Your task to perform on an android device: What's the weather? Image 0: 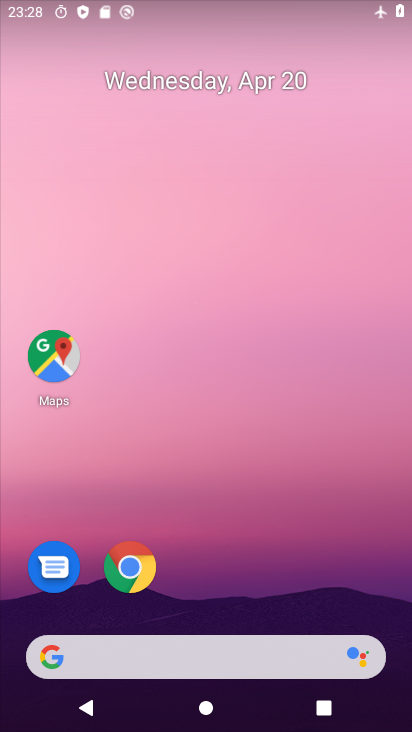
Step 0: drag from (270, 426) to (292, 275)
Your task to perform on an android device: What's the weather? Image 1: 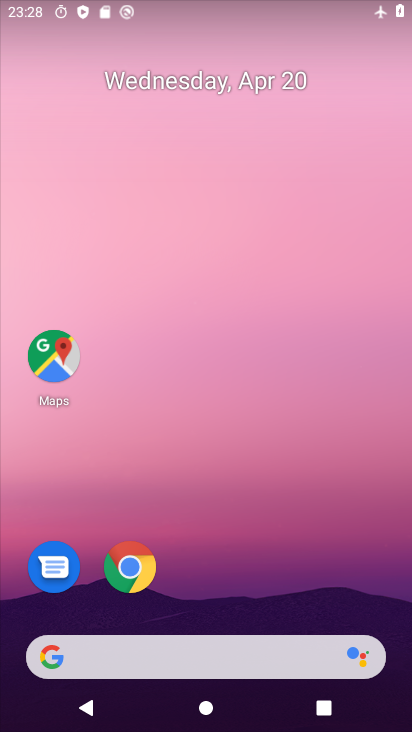
Step 1: click (300, 246)
Your task to perform on an android device: What's the weather? Image 2: 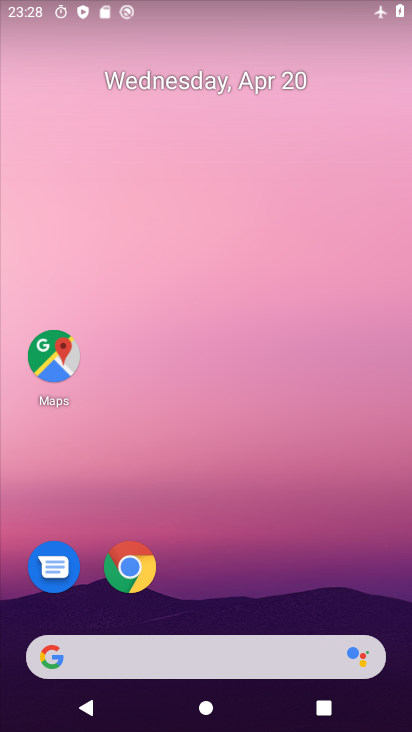
Step 2: click (253, 311)
Your task to perform on an android device: What's the weather? Image 3: 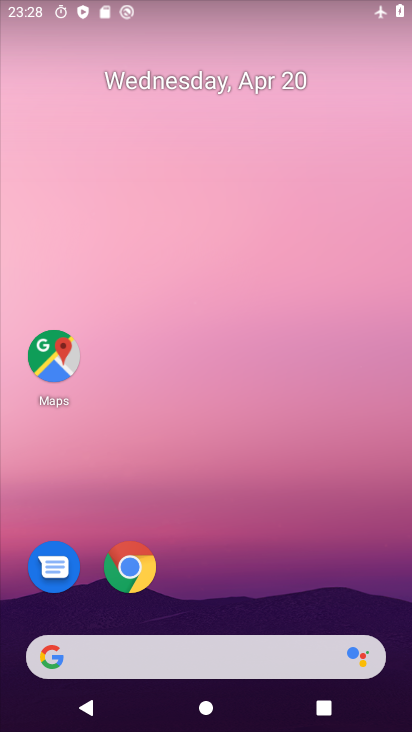
Step 3: click (275, 297)
Your task to perform on an android device: What's the weather? Image 4: 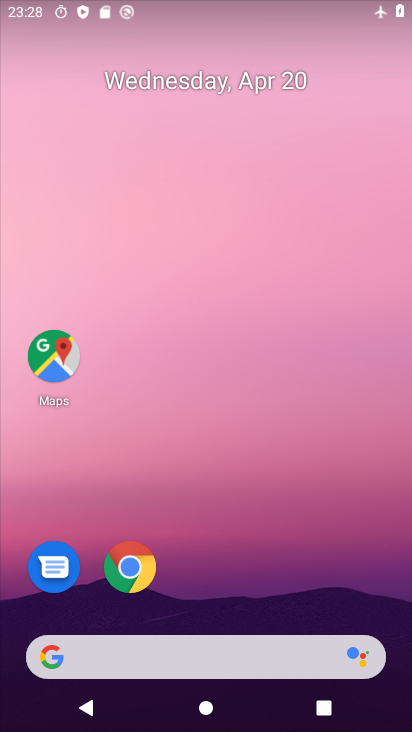
Step 4: click (272, 347)
Your task to perform on an android device: What's the weather? Image 5: 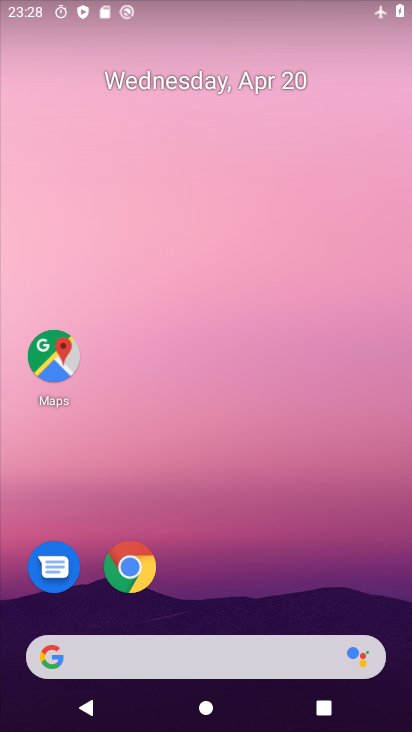
Step 5: click (255, 151)
Your task to perform on an android device: What's the weather? Image 6: 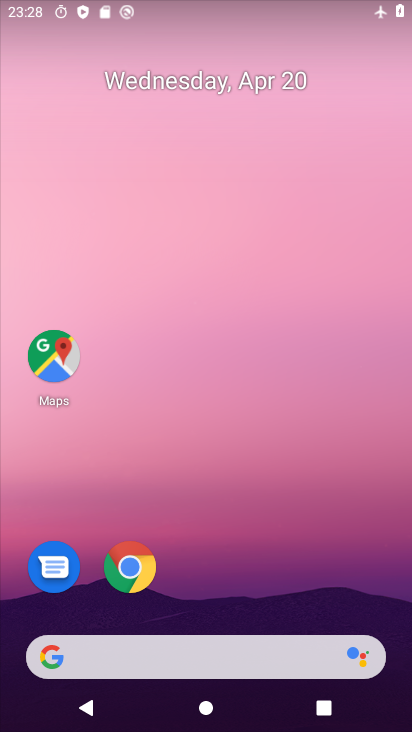
Step 6: drag from (294, 127) to (264, 286)
Your task to perform on an android device: What's the weather? Image 7: 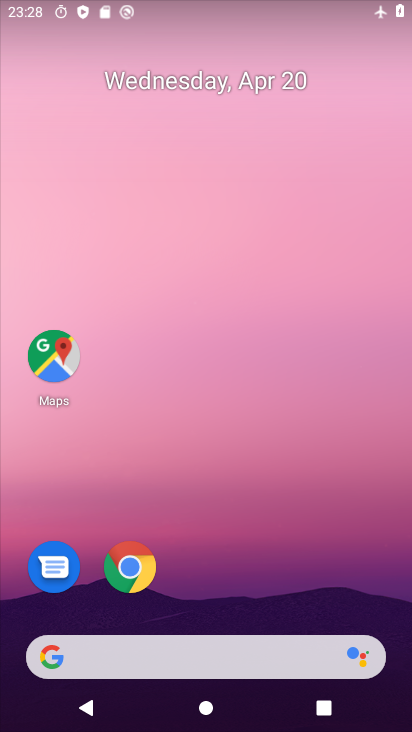
Step 7: click (257, 286)
Your task to perform on an android device: What's the weather? Image 8: 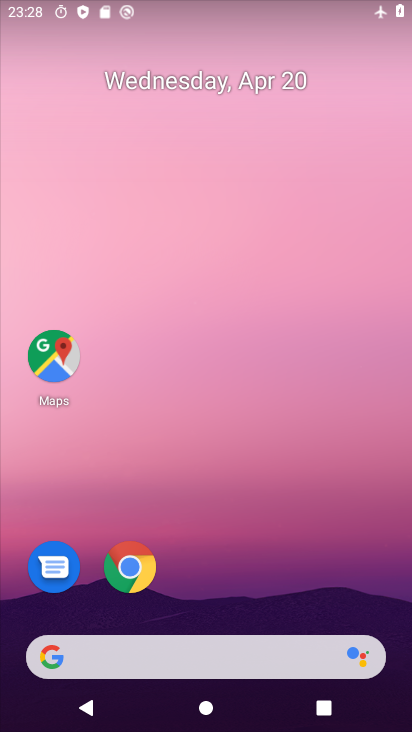
Step 8: drag from (255, 597) to (274, 139)
Your task to perform on an android device: What's the weather? Image 9: 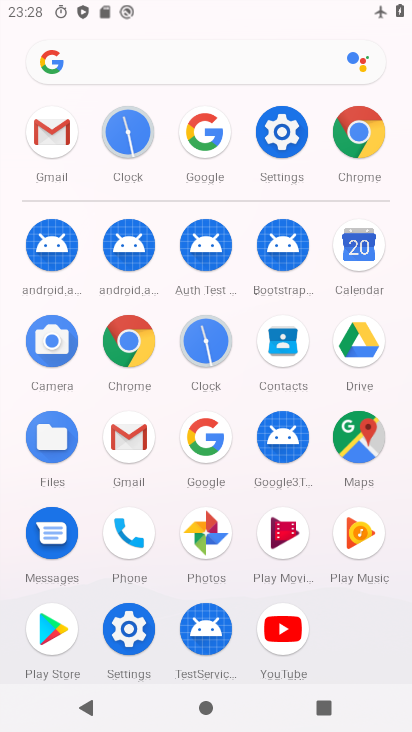
Step 9: click (129, 325)
Your task to perform on an android device: What's the weather? Image 10: 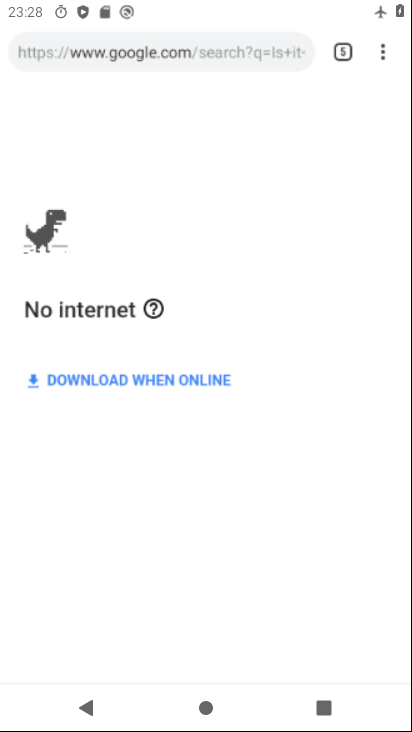
Step 10: click (129, 325)
Your task to perform on an android device: What's the weather? Image 11: 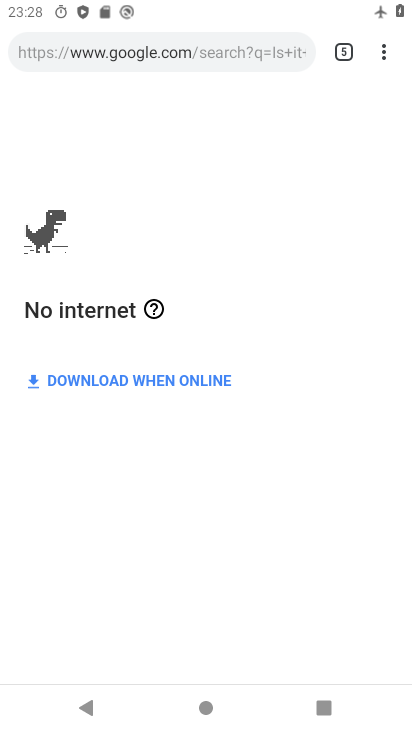
Step 11: click (383, 42)
Your task to perform on an android device: What's the weather? Image 12: 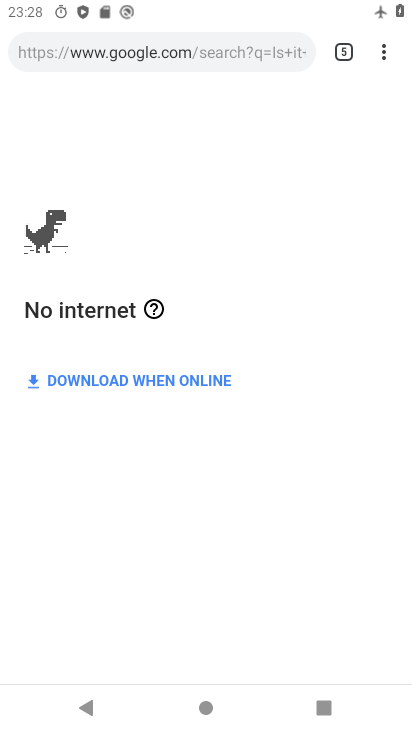
Step 12: click (363, 53)
Your task to perform on an android device: What's the weather? Image 13: 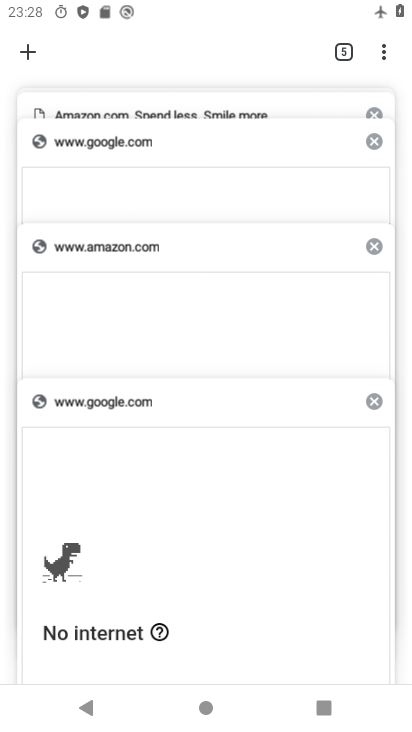
Step 13: click (222, 538)
Your task to perform on an android device: What's the weather? Image 14: 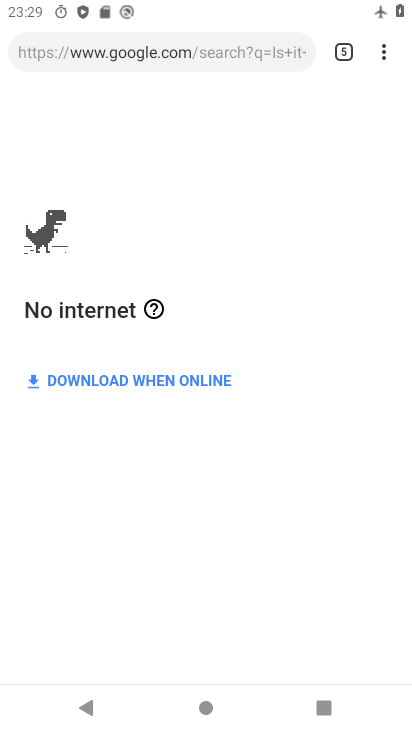
Step 14: click (371, 49)
Your task to perform on an android device: What's the weather? Image 15: 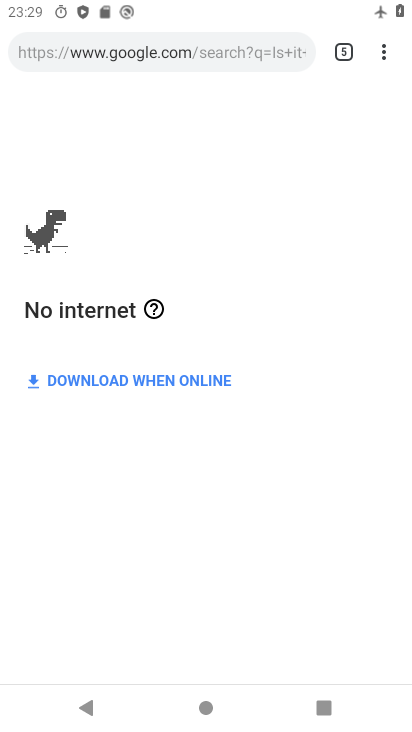
Step 15: click (373, 51)
Your task to perform on an android device: What's the weather? Image 16: 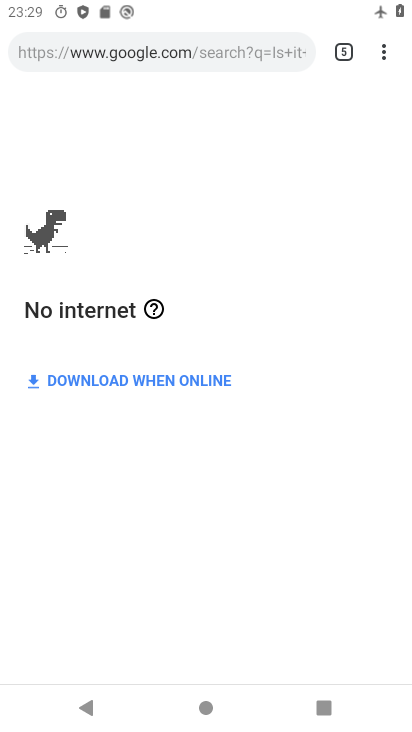
Step 16: click (370, 54)
Your task to perform on an android device: What's the weather? Image 17: 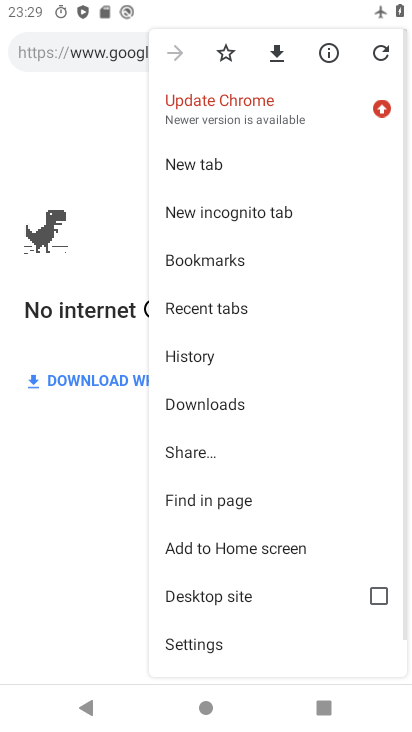
Step 17: click (193, 164)
Your task to perform on an android device: What's the weather? Image 18: 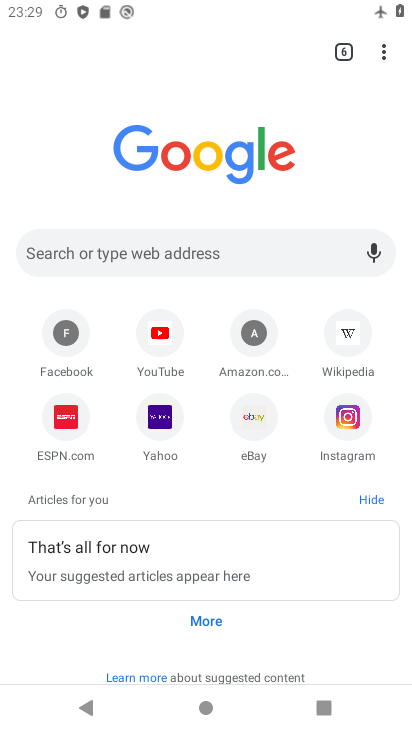
Step 18: click (284, 241)
Your task to perform on an android device: What's the weather? Image 19: 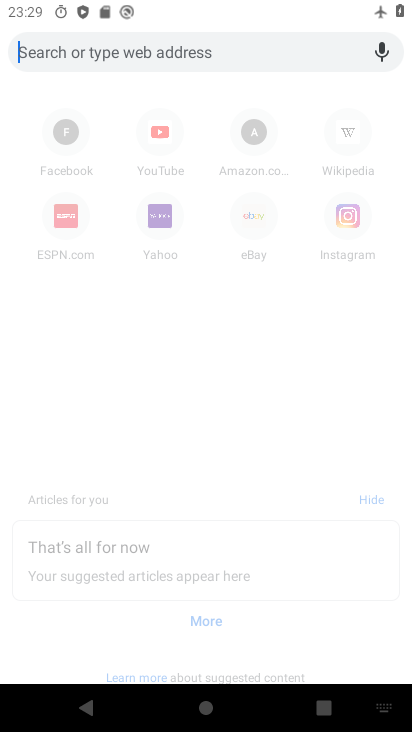
Step 19: type "What's the weather?"
Your task to perform on an android device: What's the weather? Image 20: 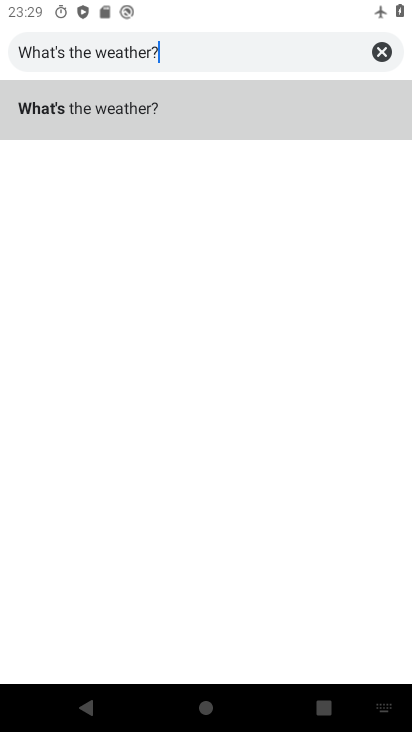
Step 20: click (174, 105)
Your task to perform on an android device: What's the weather? Image 21: 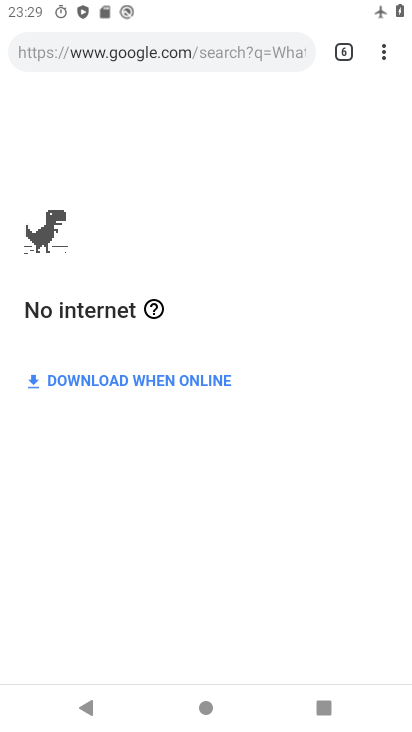
Step 21: task complete